Your task to perform on an android device: Open Google Chrome Image 0: 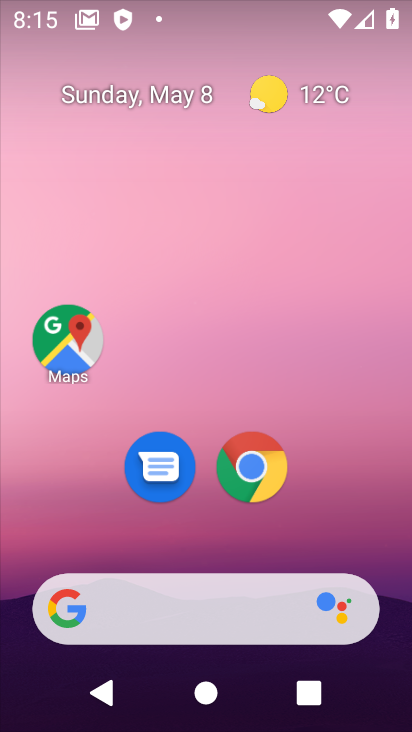
Step 0: click (260, 466)
Your task to perform on an android device: Open Google Chrome Image 1: 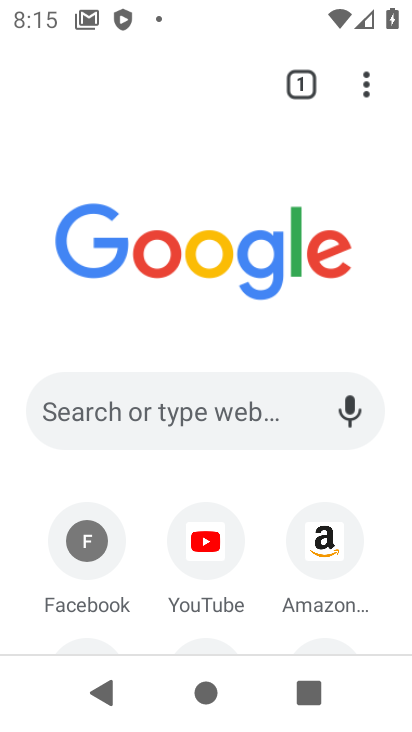
Step 1: task complete